Your task to perform on an android device: Open the phone app and click the voicemail tab. Image 0: 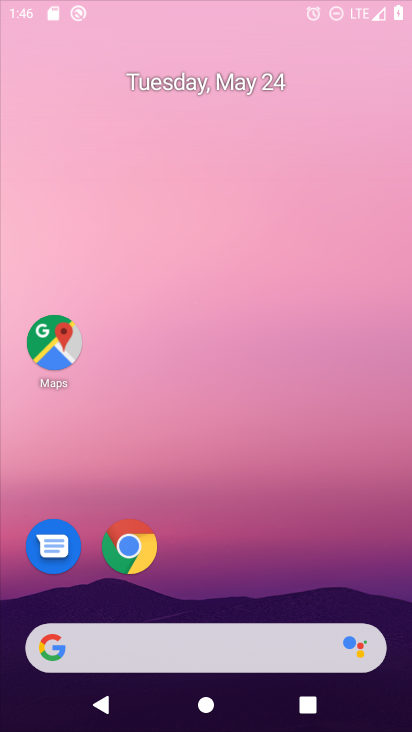
Step 0: click (383, 140)
Your task to perform on an android device: Open the phone app and click the voicemail tab. Image 1: 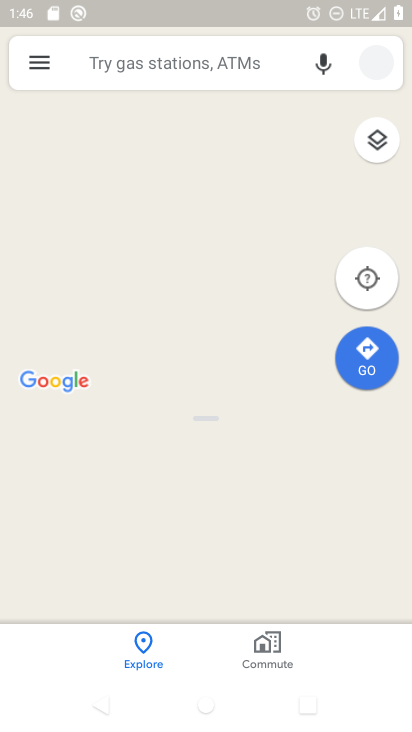
Step 1: press home button
Your task to perform on an android device: Open the phone app and click the voicemail tab. Image 2: 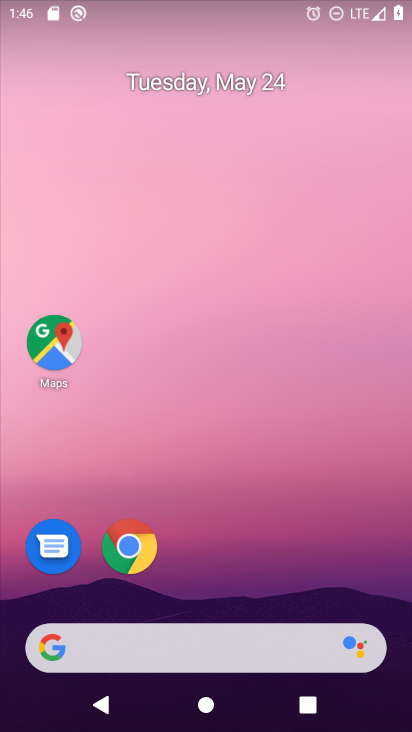
Step 2: drag from (226, 658) to (385, 57)
Your task to perform on an android device: Open the phone app and click the voicemail tab. Image 3: 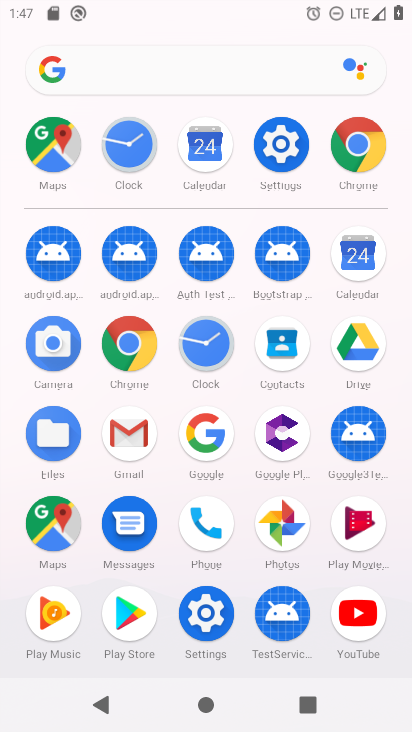
Step 3: click (219, 521)
Your task to perform on an android device: Open the phone app and click the voicemail tab. Image 4: 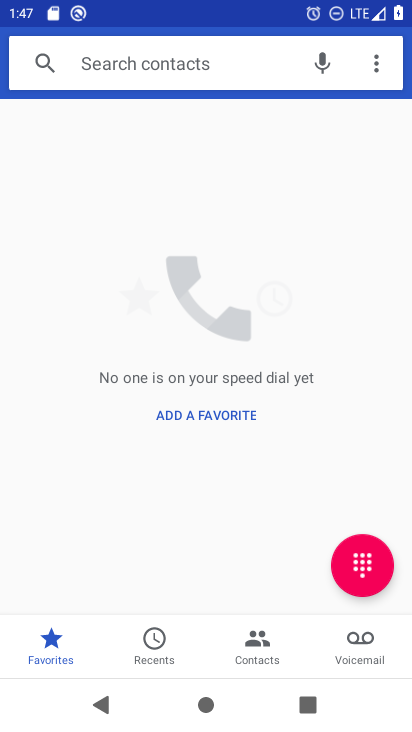
Step 4: click (343, 649)
Your task to perform on an android device: Open the phone app and click the voicemail tab. Image 5: 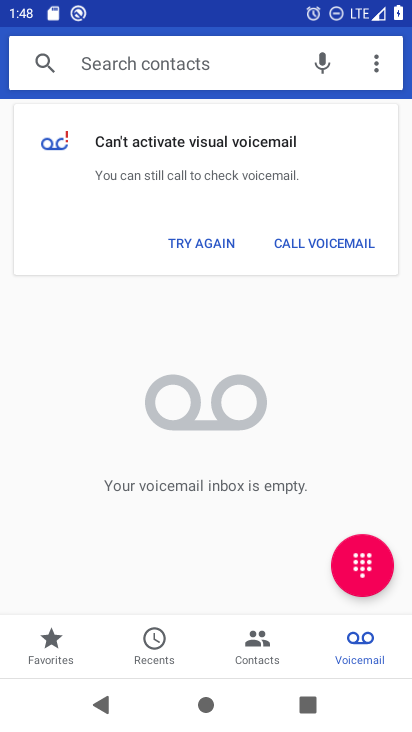
Step 5: task complete